Your task to perform on an android device: Open display settings Image 0: 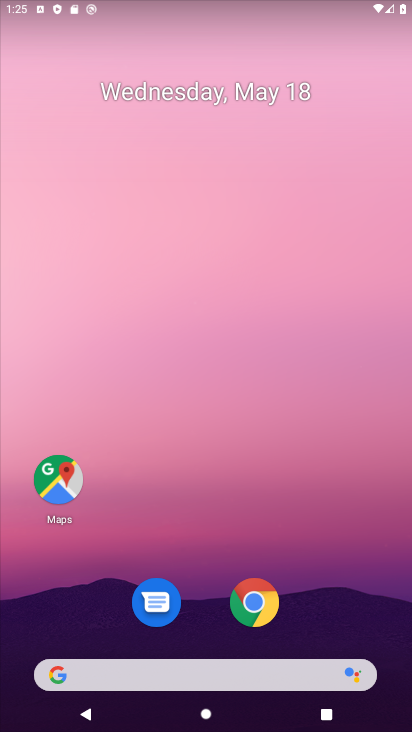
Step 0: drag from (263, 712) to (243, 166)
Your task to perform on an android device: Open display settings Image 1: 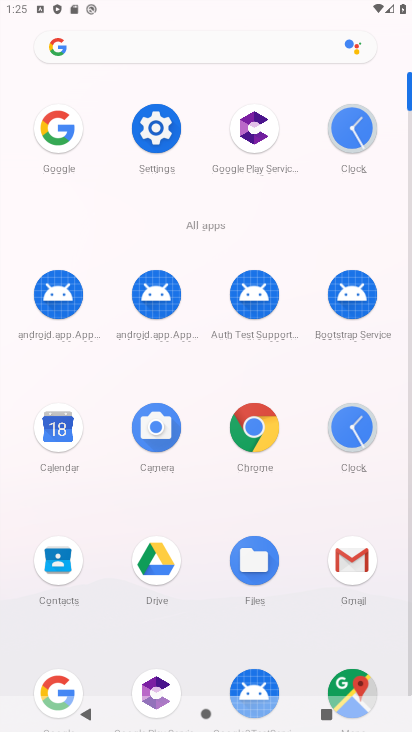
Step 1: click (155, 142)
Your task to perform on an android device: Open display settings Image 2: 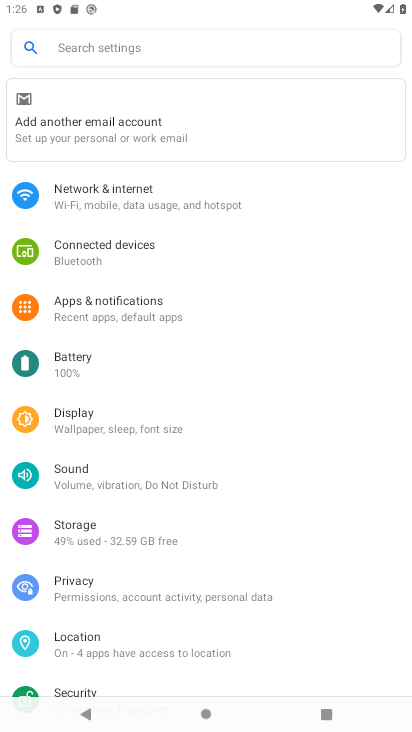
Step 2: click (167, 432)
Your task to perform on an android device: Open display settings Image 3: 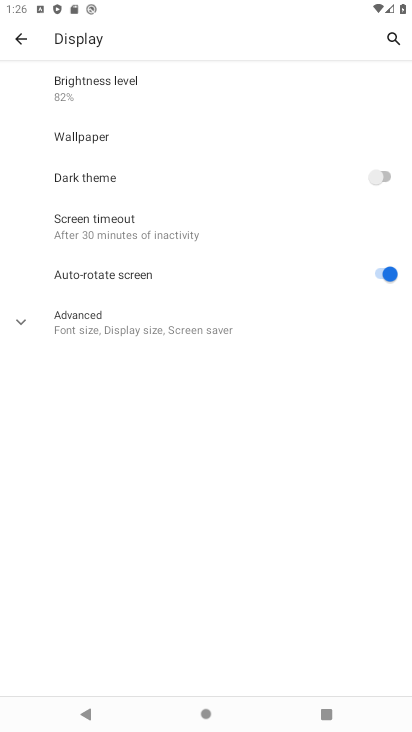
Step 3: task complete